Your task to perform on an android device: Search for "bose soundlink" on ebay, select the first entry, add it to the cart, then select checkout. Image 0: 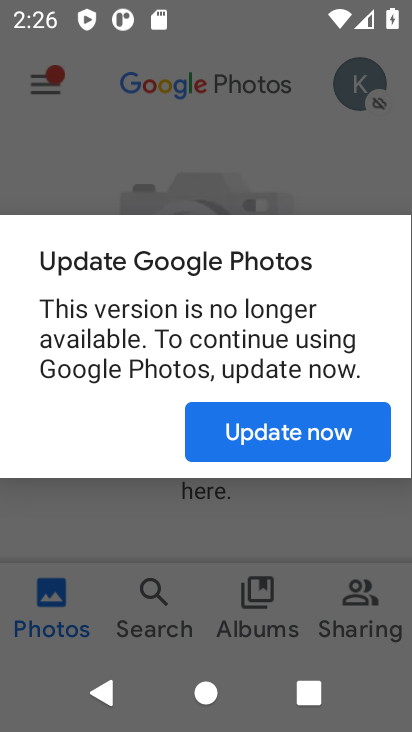
Step 0: press home button
Your task to perform on an android device: Search for "bose soundlink" on ebay, select the first entry, add it to the cart, then select checkout. Image 1: 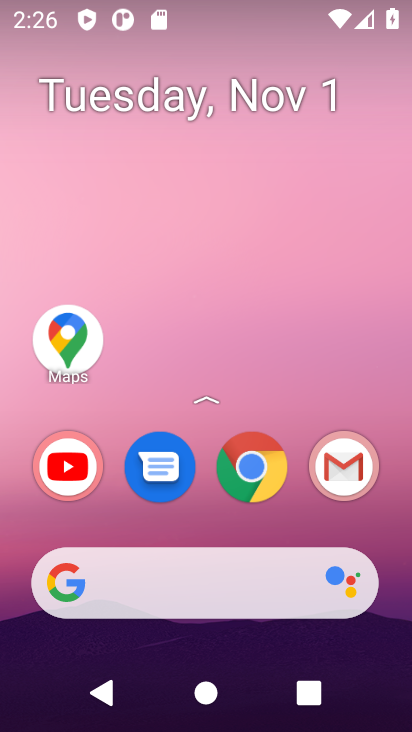
Step 1: click (254, 479)
Your task to perform on an android device: Search for "bose soundlink" on ebay, select the first entry, add it to the cart, then select checkout. Image 2: 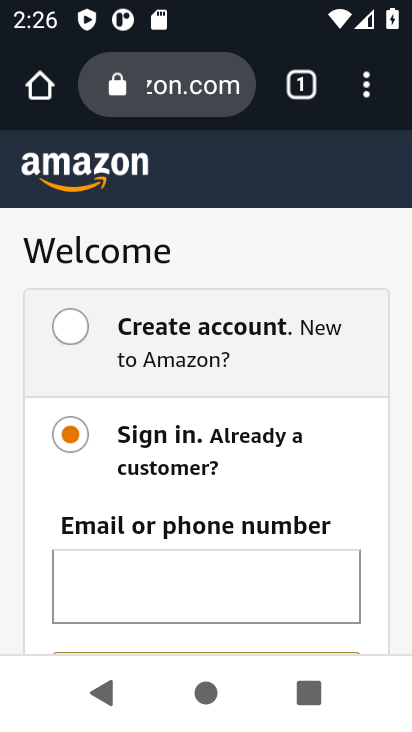
Step 2: click (176, 97)
Your task to perform on an android device: Search for "bose soundlink" on ebay, select the first entry, add it to the cart, then select checkout. Image 3: 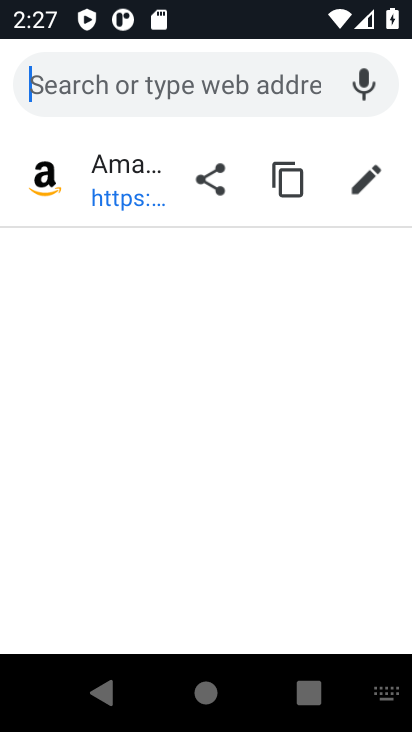
Step 3: type "ebay"
Your task to perform on an android device: Search for "bose soundlink" on ebay, select the first entry, add it to the cart, then select checkout. Image 4: 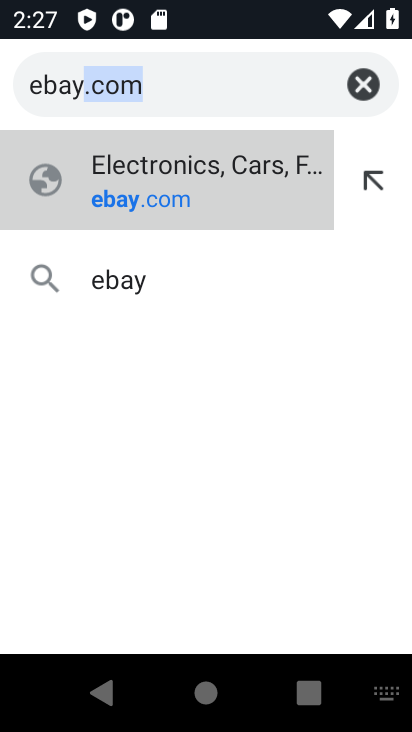
Step 4: type ""
Your task to perform on an android device: Search for "bose soundlink" on ebay, select the first entry, add it to the cart, then select checkout. Image 5: 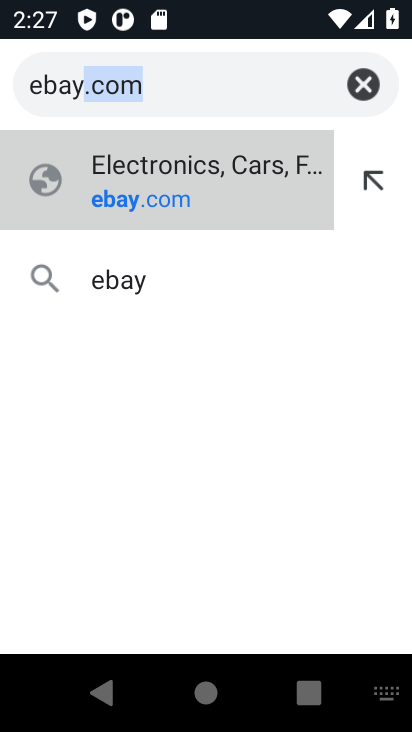
Step 5: press enter
Your task to perform on an android device: Search for "bose soundlink" on ebay, select the first entry, add it to the cart, then select checkout. Image 6: 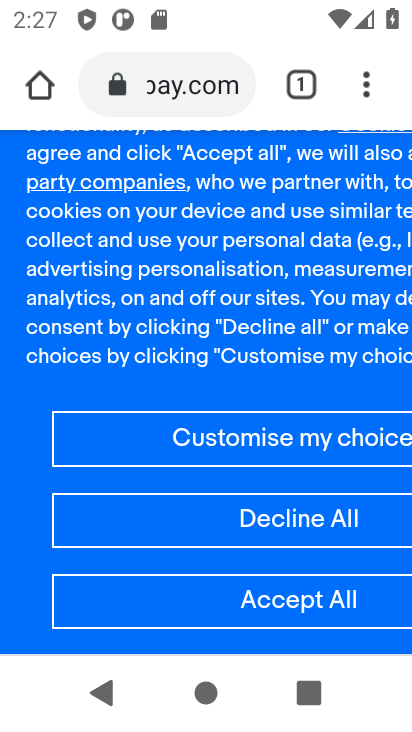
Step 6: click (297, 617)
Your task to perform on an android device: Search for "bose soundlink" on ebay, select the first entry, add it to the cart, then select checkout. Image 7: 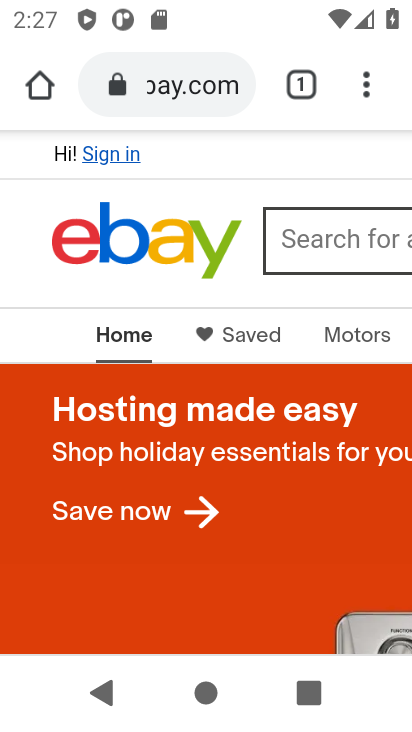
Step 7: click (356, 245)
Your task to perform on an android device: Search for "bose soundlink" on ebay, select the first entry, add it to the cart, then select checkout. Image 8: 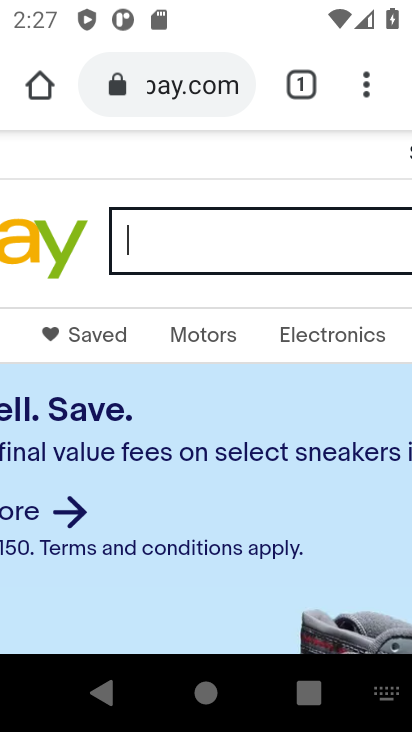
Step 8: type "bose soundlink"
Your task to perform on an android device: Search for "bose soundlink" on ebay, select the first entry, add it to the cart, then select checkout. Image 9: 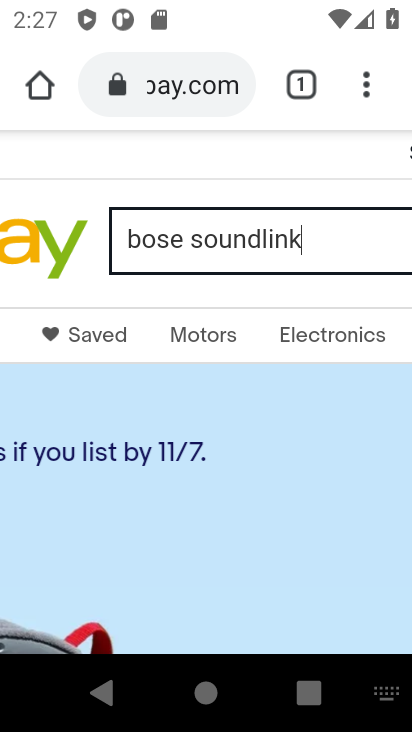
Step 9: type ""
Your task to perform on an android device: Search for "bose soundlink" on ebay, select the first entry, add it to the cart, then select checkout. Image 10: 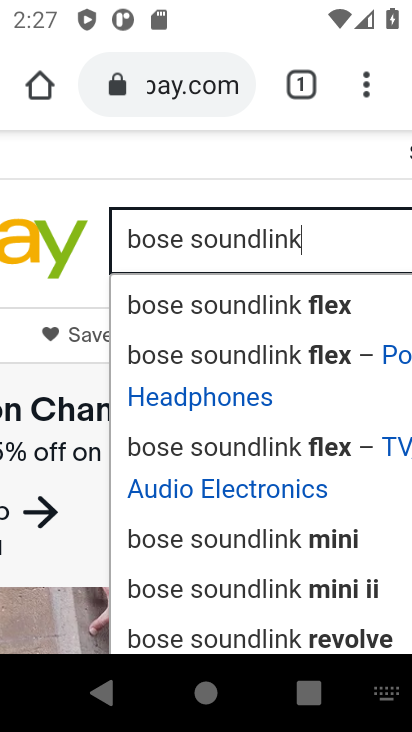
Step 10: press enter
Your task to perform on an android device: Search for "bose soundlink" on ebay, select the first entry, add it to the cart, then select checkout. Image 11: 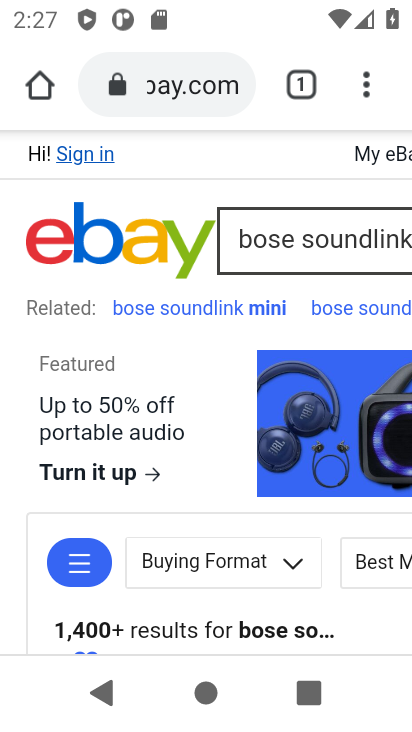
Step 11: drag from (311, 605) to (323, 134)
Your task to perform on an android device: Search for "bose soundlink" on ebay, select the first entry, add it to the cart, then select checkout. Image 12: 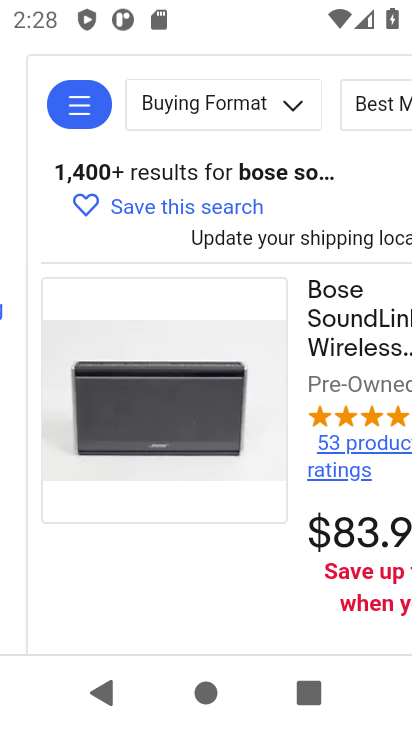
Step 12: click (353, 323)
Your task to perform on an android device: Search for "bose soundlink" on ebay, select the first entry, add it to the cart, then select checkout. Image 13: 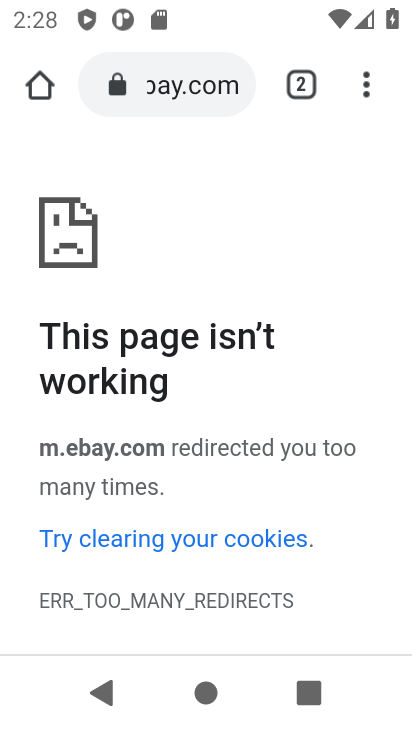
Step 13: press back button
Your task to perform on an android device: Search for "bose soundlink" on ebay, select the first entry, add it to the cart, then select checkout. Image 14: 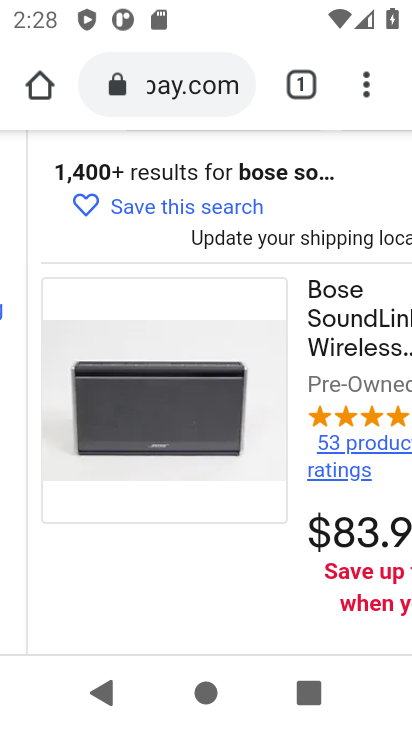
Step 14: drag from (272, 574) to (259, 174)
Your task to perform on an android device: Search for "bose soundlink" on ebay, select the first entry, add it to the cart, then select checkout. Image 15: 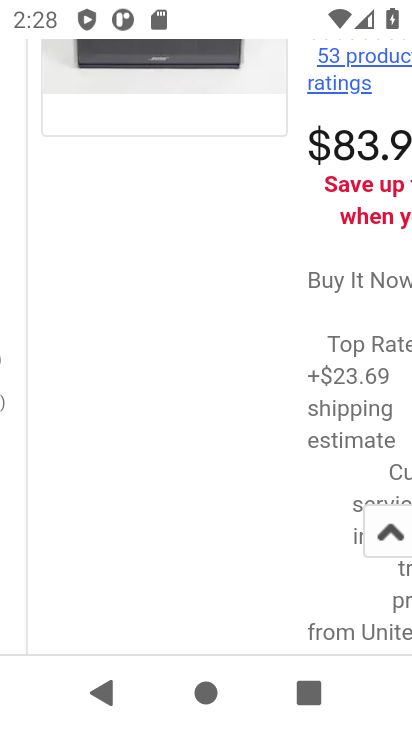
Step 15: drag from (290, 580) to (289, 218)
Your task to perform on an android device: Search for "bose soundlink" on ebay, select the first entry, add it to the cart, then select checkout. Image 16: 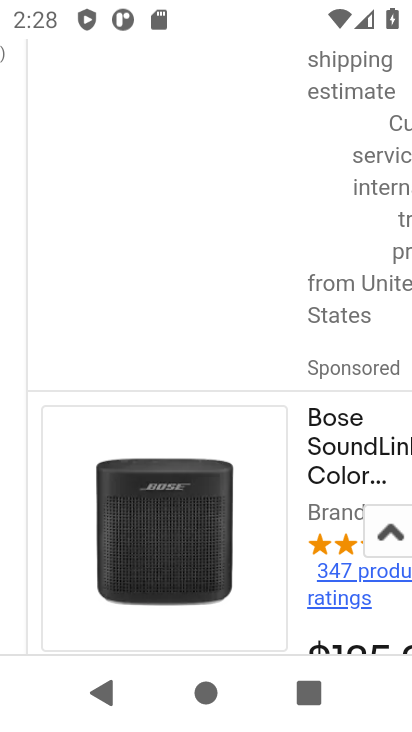
Step 16: click (350, 459)
Your task to perform on an android device: Search for "bose soundlink" on ebay, select the first entry, add it to the cart, then select checkout. Image 17: 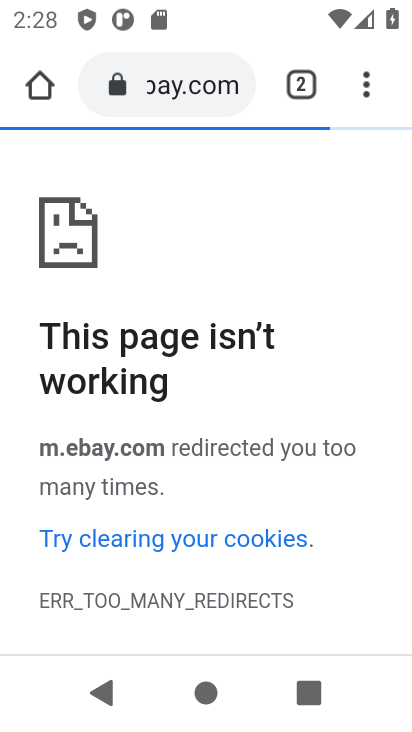
Step 17: task complete